Your task to perform on an android device: turn notification dots on Image 0: 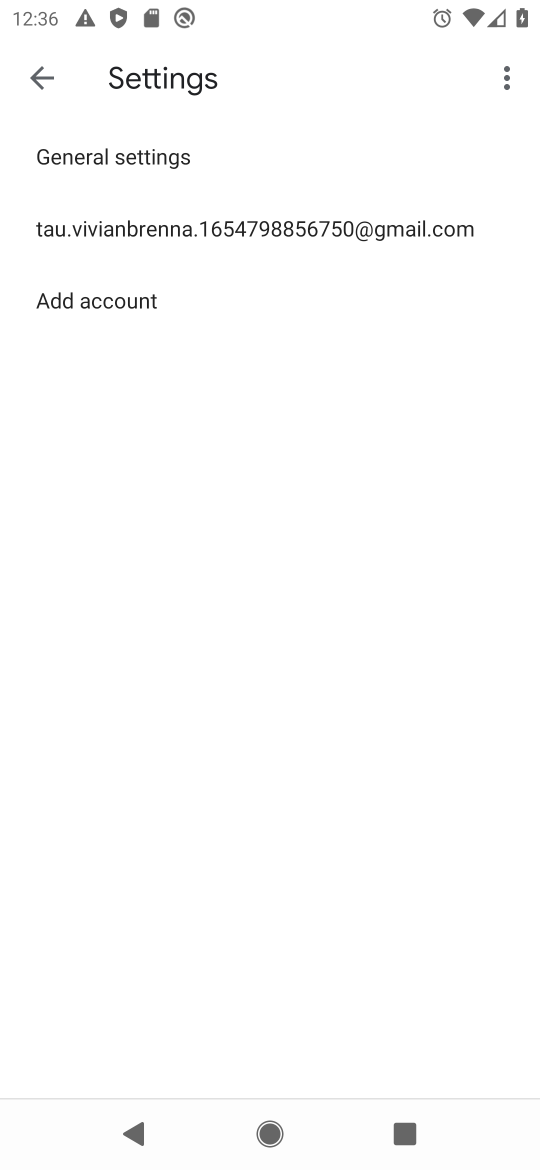
Step 0: press home button
Your task to perform on an android device: turn notification dots on Image 1: 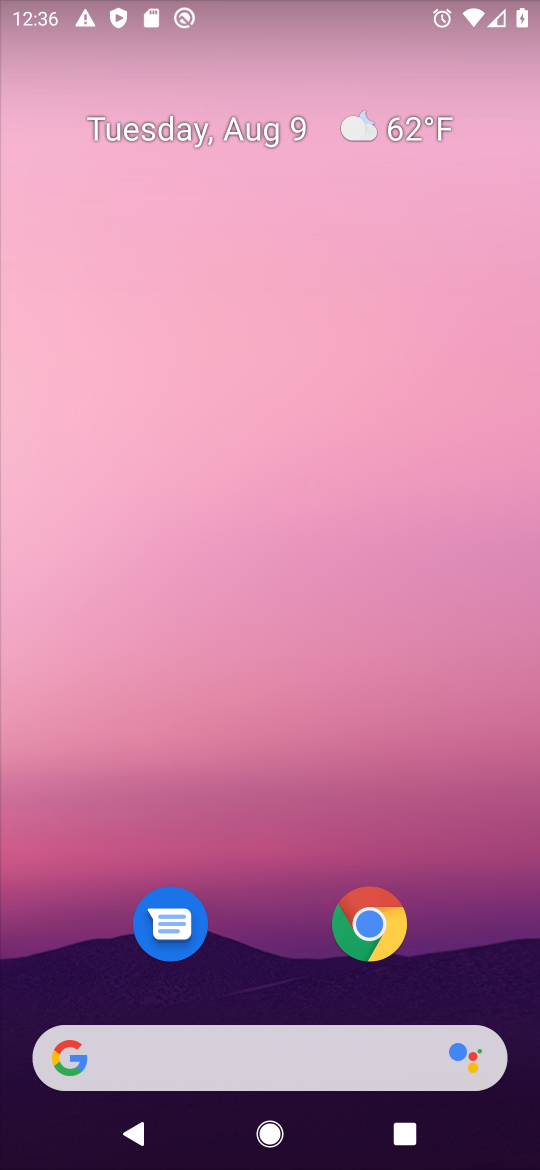
Step 1: drag from (261, 966) to (260, 228)
Your task to perform on an android device: turn notification dots on Image 2: 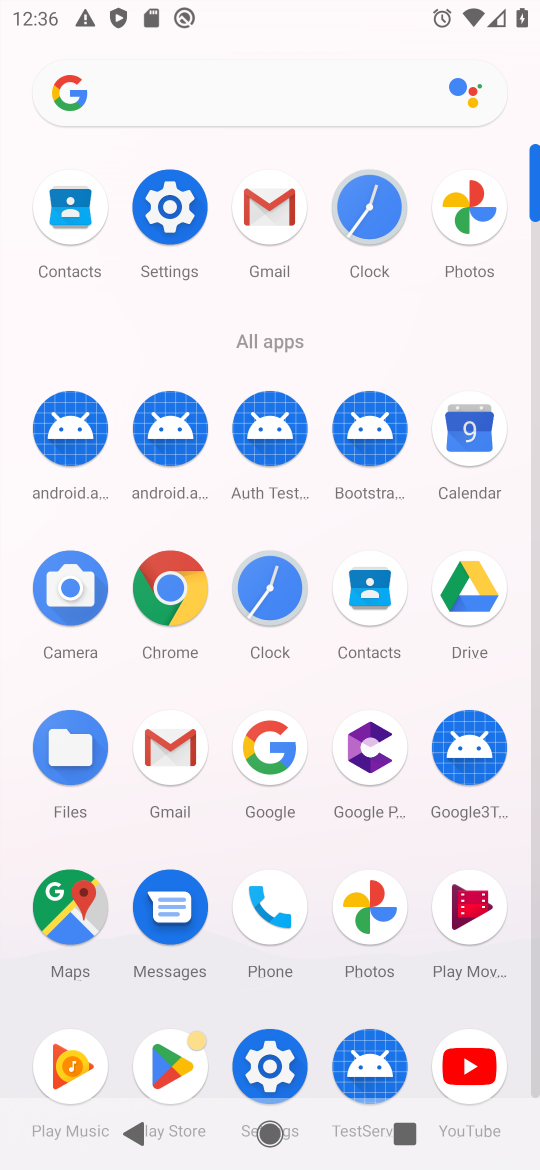
Step 2: click (168, 263)
Your task to perform on an android device: turn notification dots on Image 3: 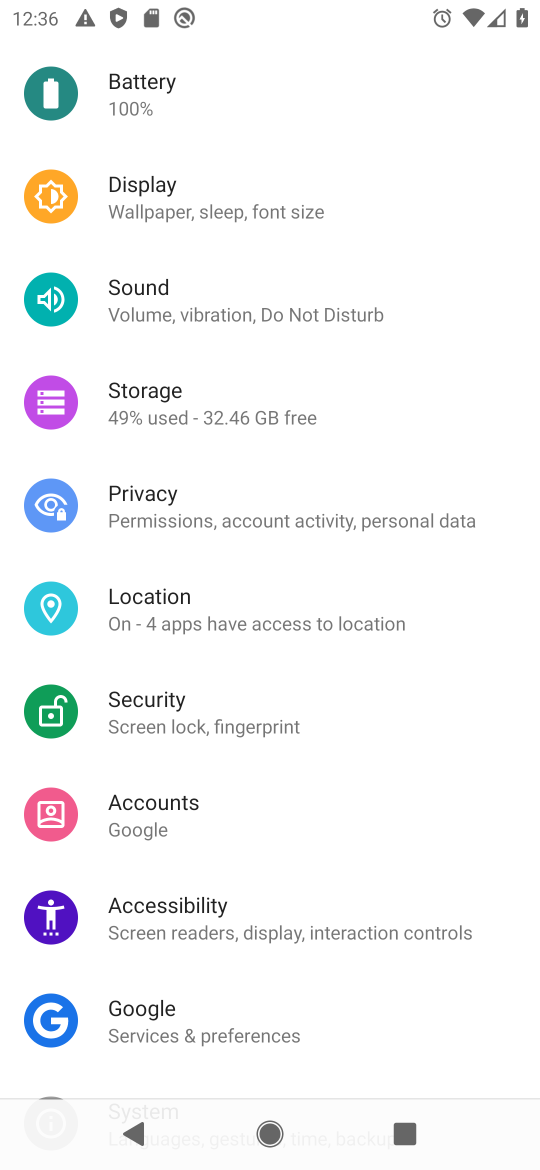
Step 3: task complete